Your task to perform on an android device: Go to battery settings Image 0: 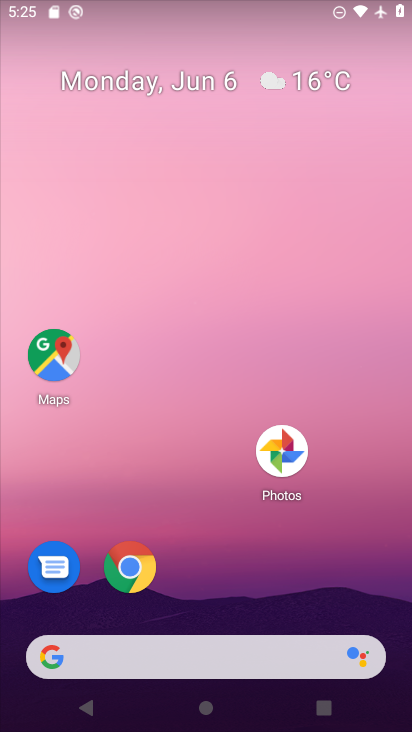
Step 0: drag from (258, 697) to (144, 76)
Your task to perform on an android device: Go to battery settings Image 1: 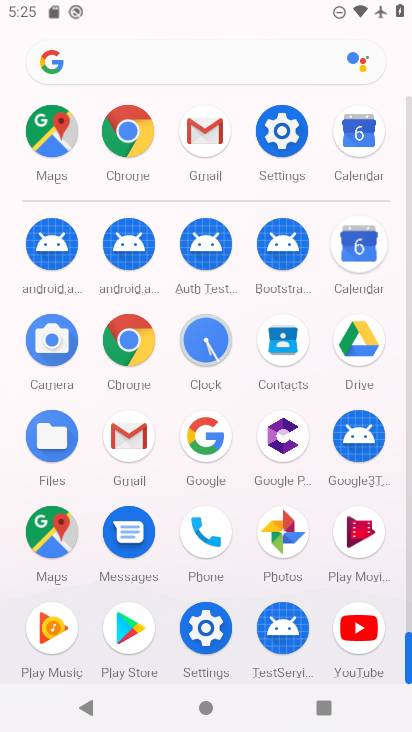
Step 1: click (276, 131)
Your task to perform on an android device: Go to battery settings Image 2: 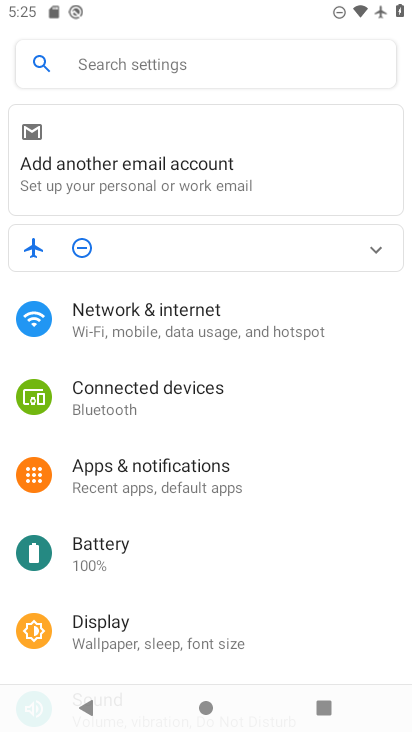
Step 2: drag from (169, 550) to (157, 146)
Your task to perform on an android device: Go to battery settings Image 3: 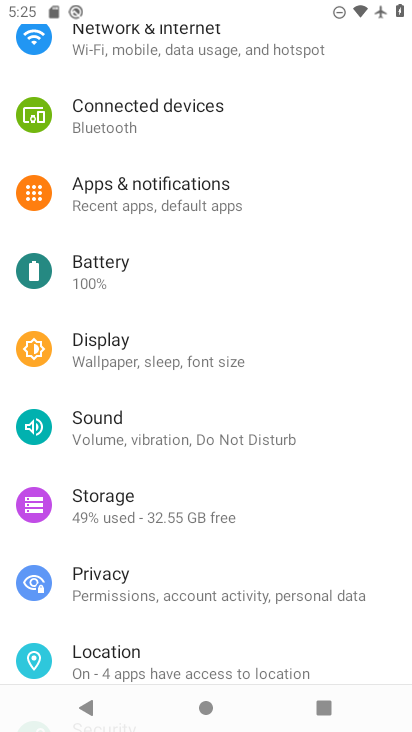
Step 3: click (102, 563)
Your task to perform on an android device: Go to battery settings Image 4: 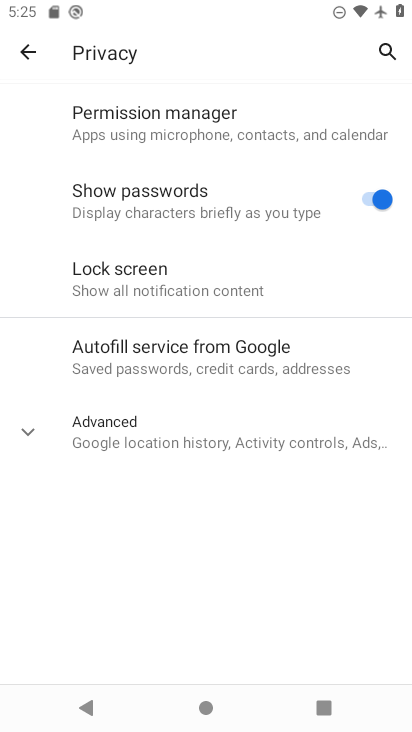
Step 4: click (23, 48)
Your task to perform on an android device: Go to battery settings Image 5: 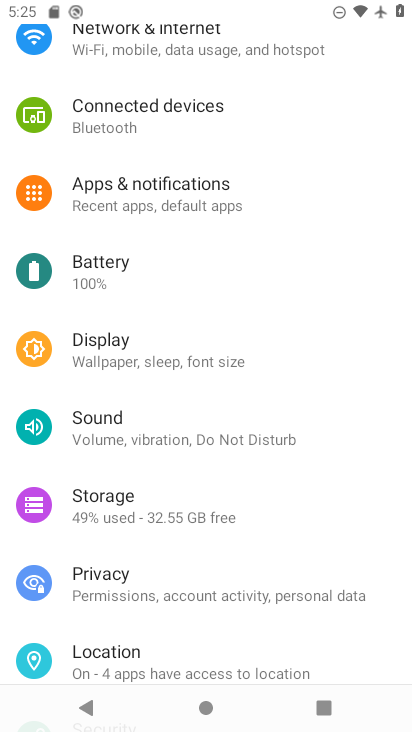
Step 5: click (99, 276)
Your task to perform on an android device: Go to battery settings Image 6: 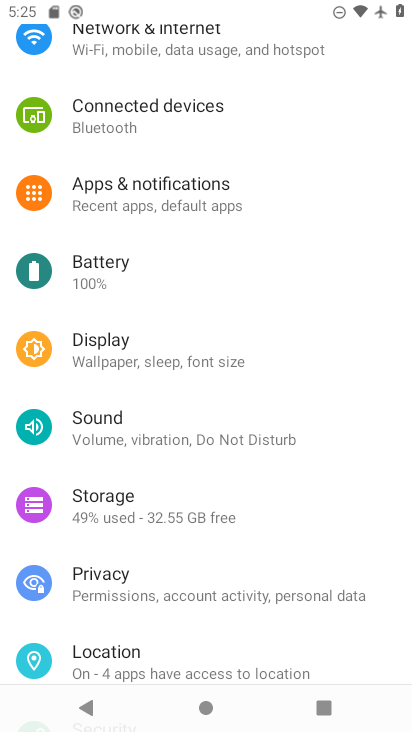
Step 6: click (99, 276)
Your task to perform on an android device: Go to battery settings Image 7: 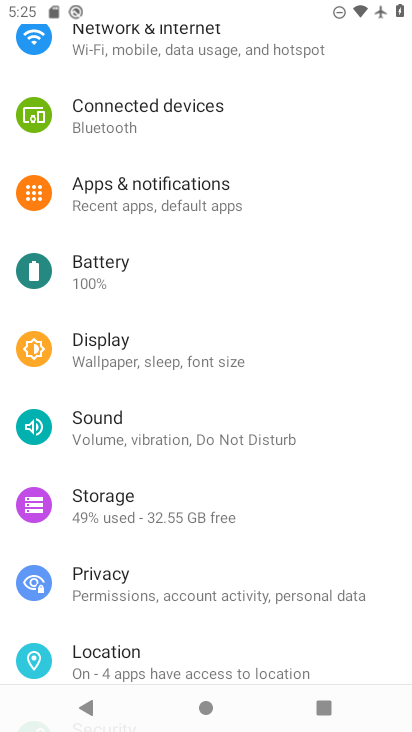
Step 7: click (99, 276)
Your task to perform on an android device: Go to battery settings Image 8: 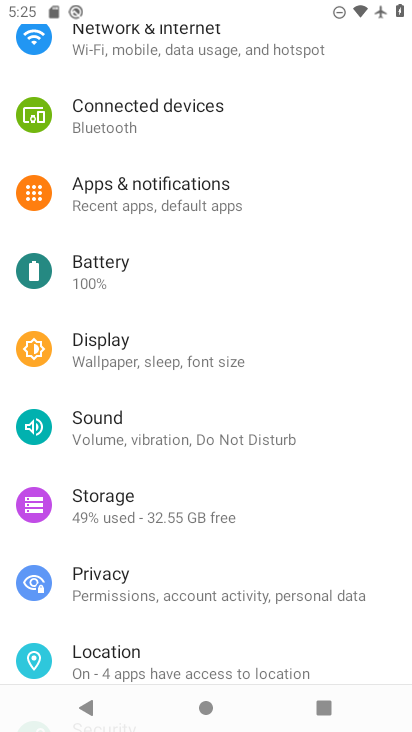
Step 8: click (98, 276)
Your task to perform on an android device: Go to battery settings Image 9: 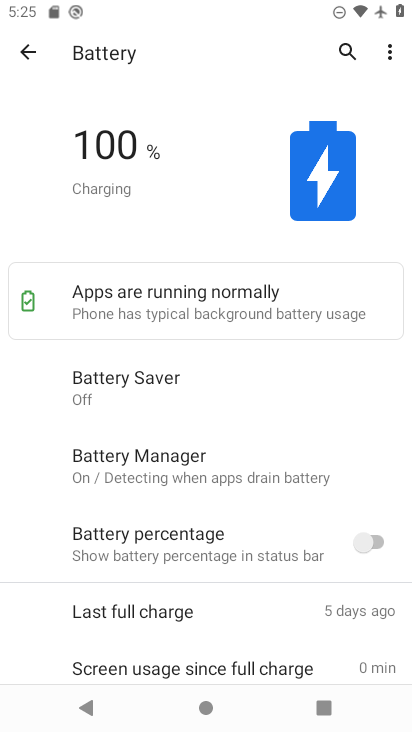
Step 9: task complete